Your task to perform on an android device: Search for the best running shoes on Nike. Image 0: 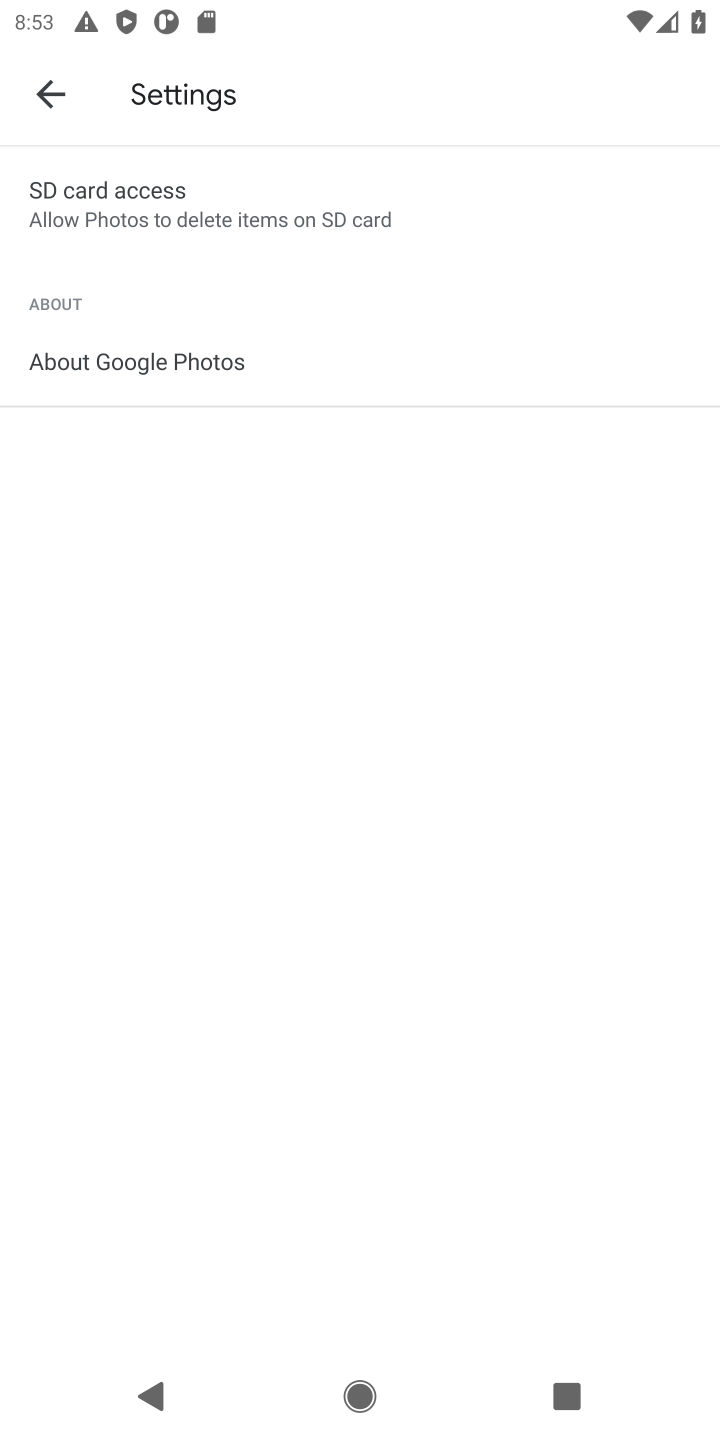
Step 0: press home button
Your task to perform on an android device: Search for the best running shoes on Nike. Image 1: 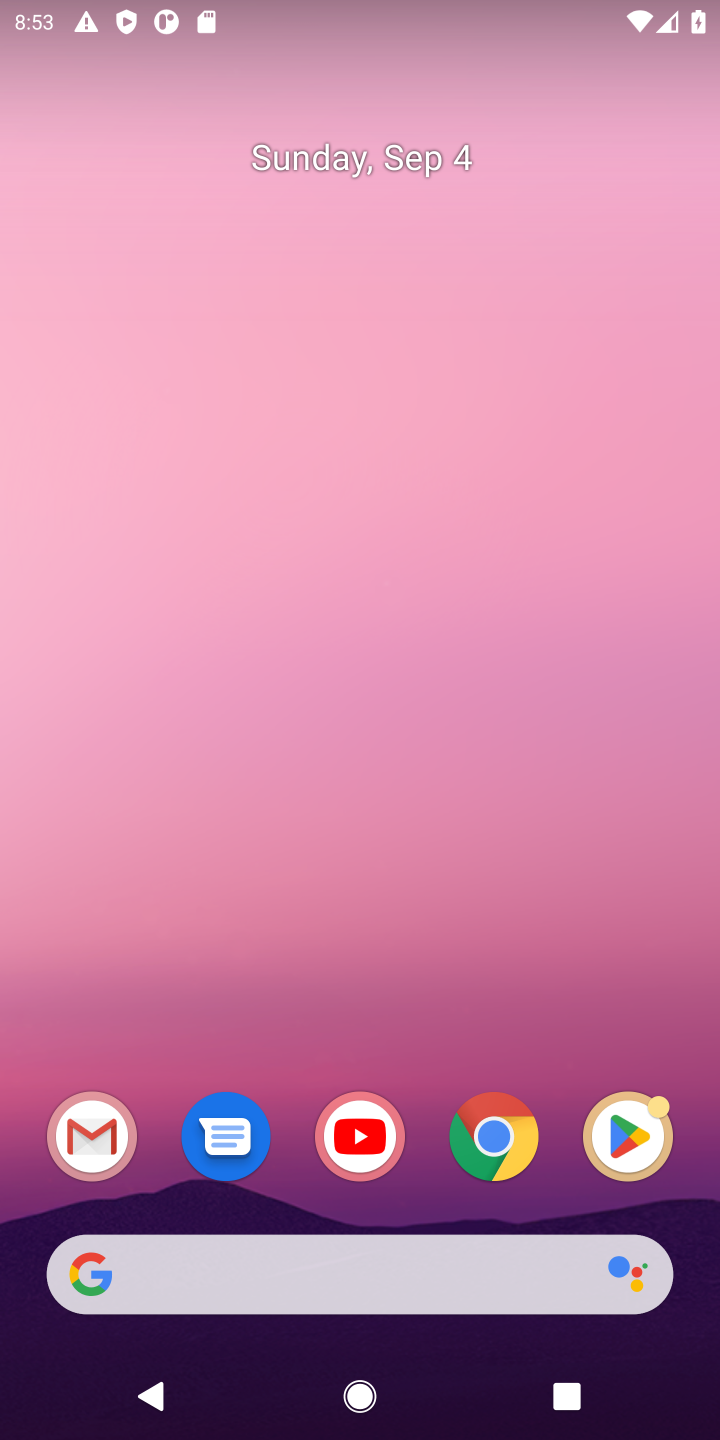
Step 1: drag from (378, 205) to (415, 391)
Your task to perform on an android device: Search for the best running shoes on Nike. Image 2: 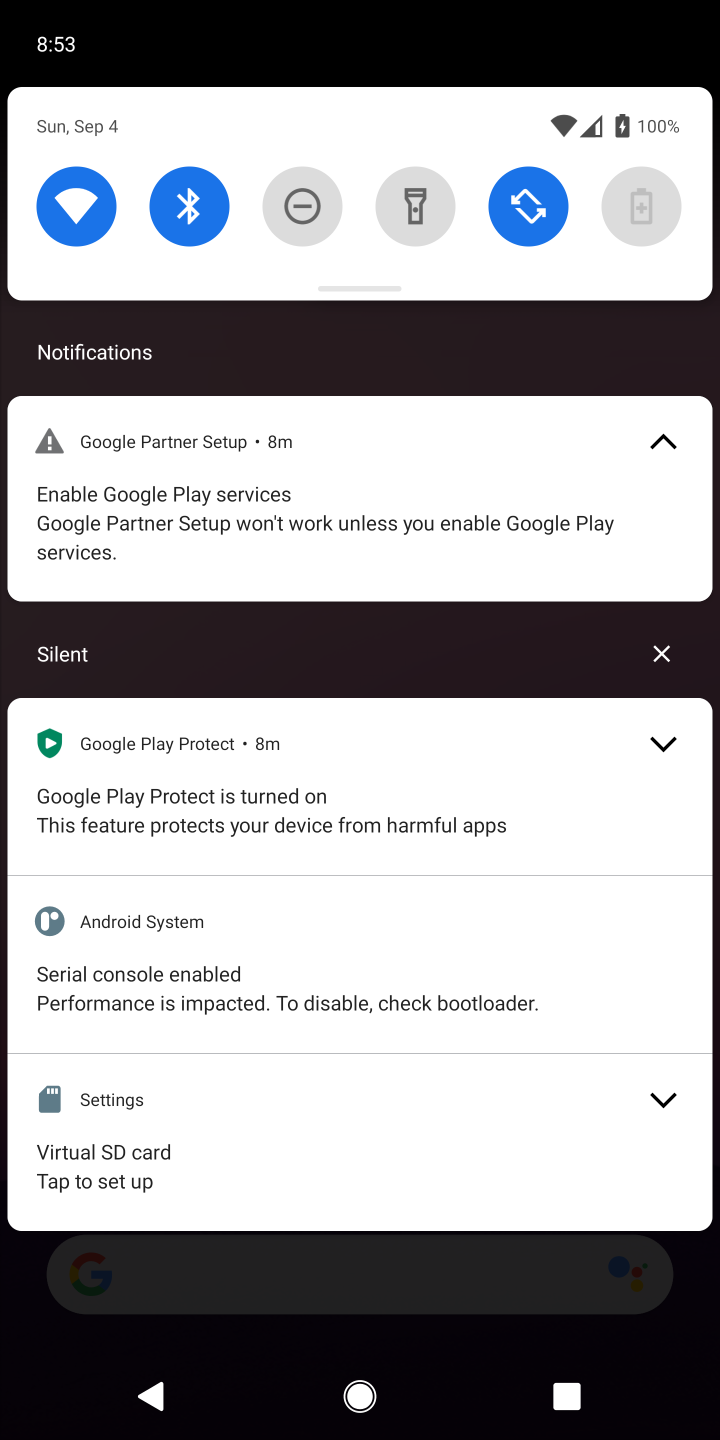
Step 2: click (279, 1185)
Your task to perform on an android device: Search for the best running shoes on Nike. Image 3: 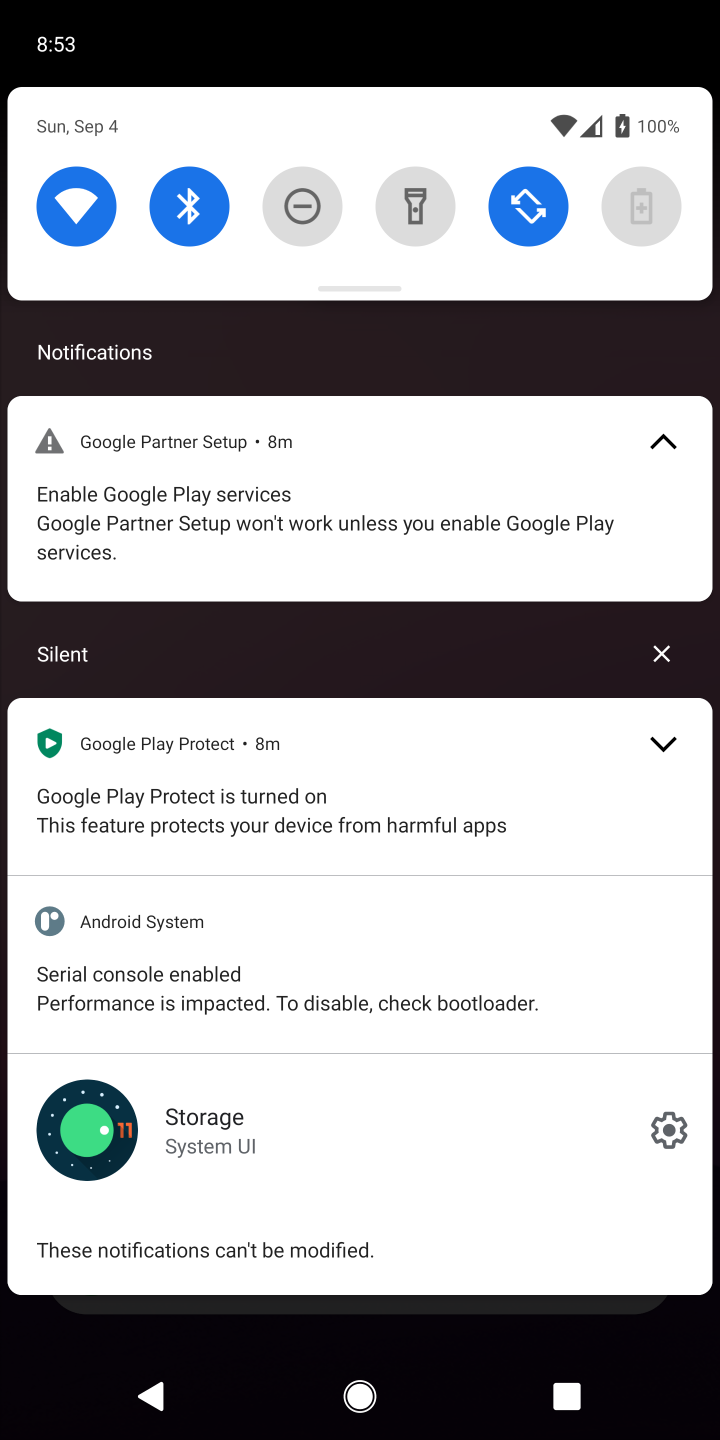
Step 3: press home button
Your task to perform on an android device: Search for the best running shoes on Nike. Image 4: 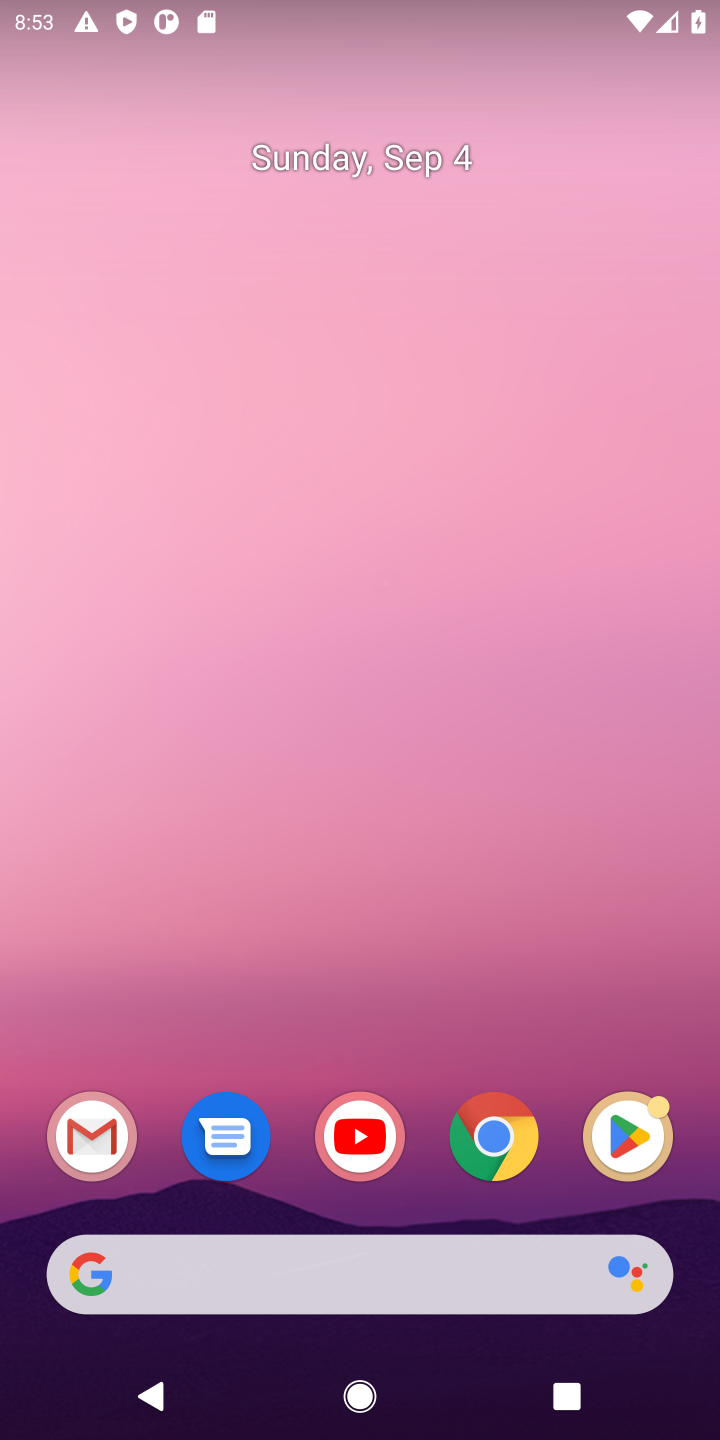
Step 4: click (394, 197)
Your task to perform on an android device: Search for the best running shoes on Nike. Image 5: 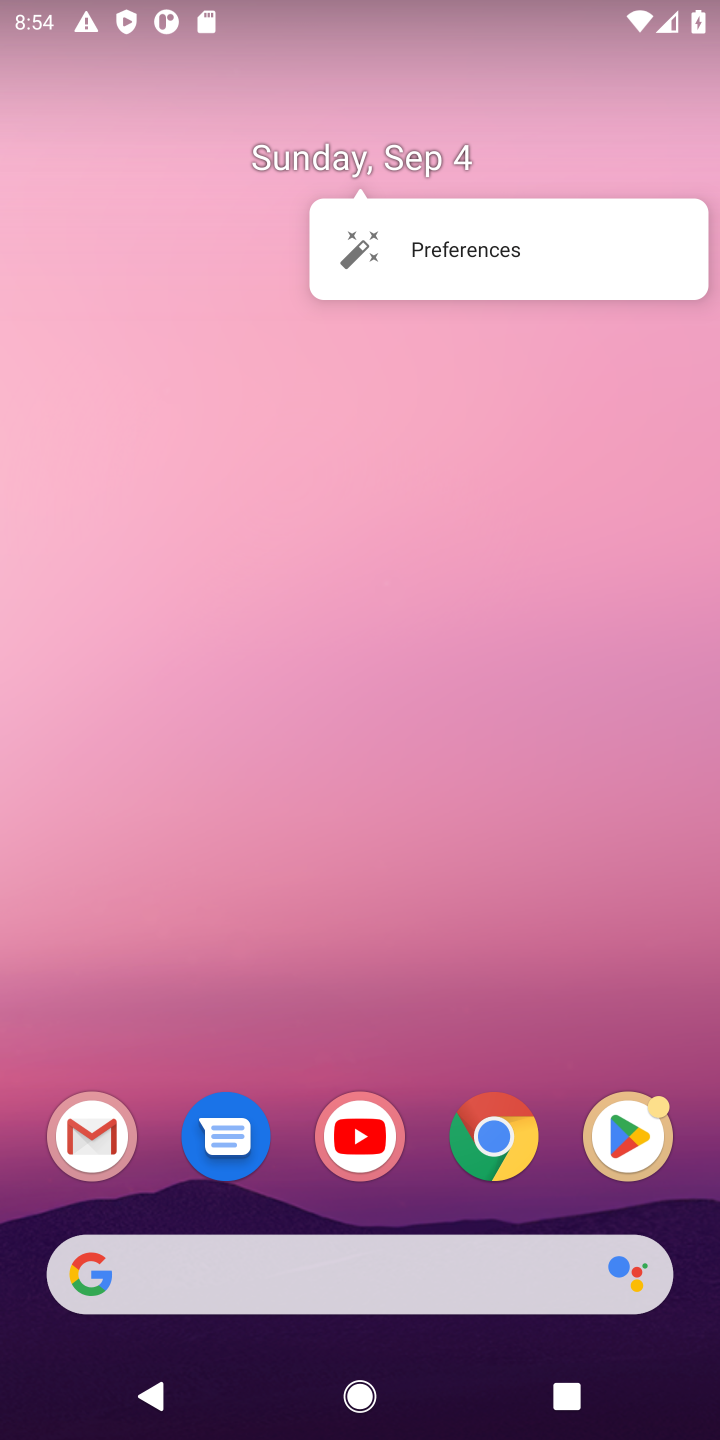
Step 5: drag from (375, 1207) to (322, 57)
Your task to perform on an android device: Search for the best running shoes on Nike. Image 6: 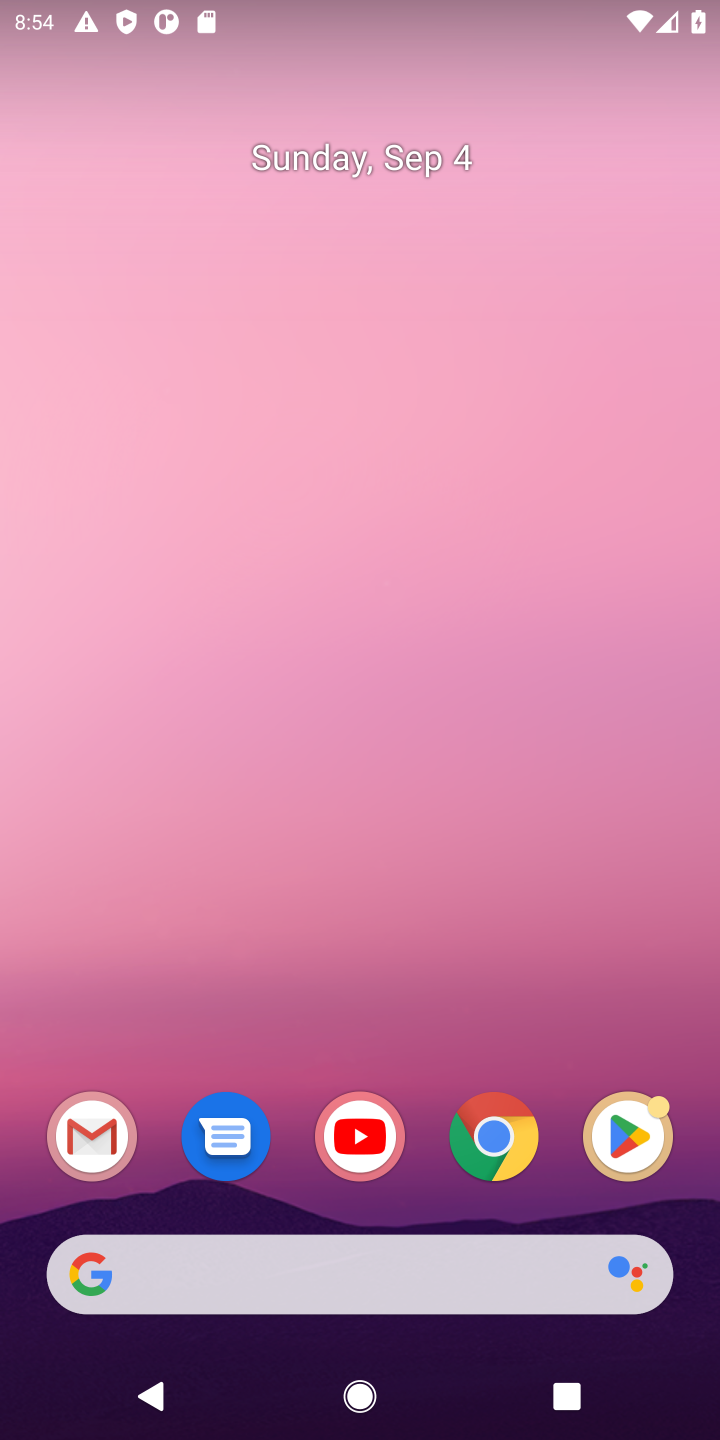
Step 6: drag from (393, 1200) to (469, 239)
Your task to perform on an android device: Search for the best running shoes on Nike. Image 7: 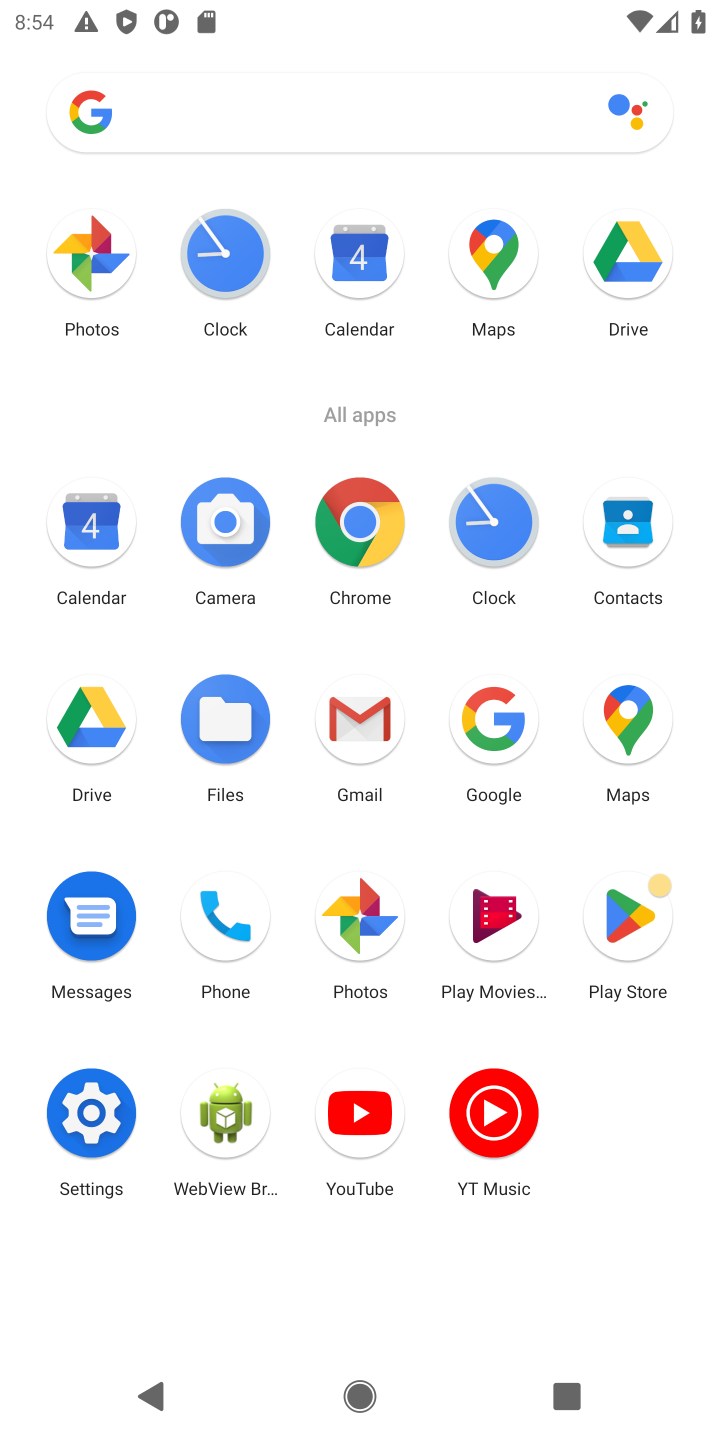
Step 7: click (500, 721)
Your task to perform on an android device: Search for the best running shoes on Nike. Image 8: 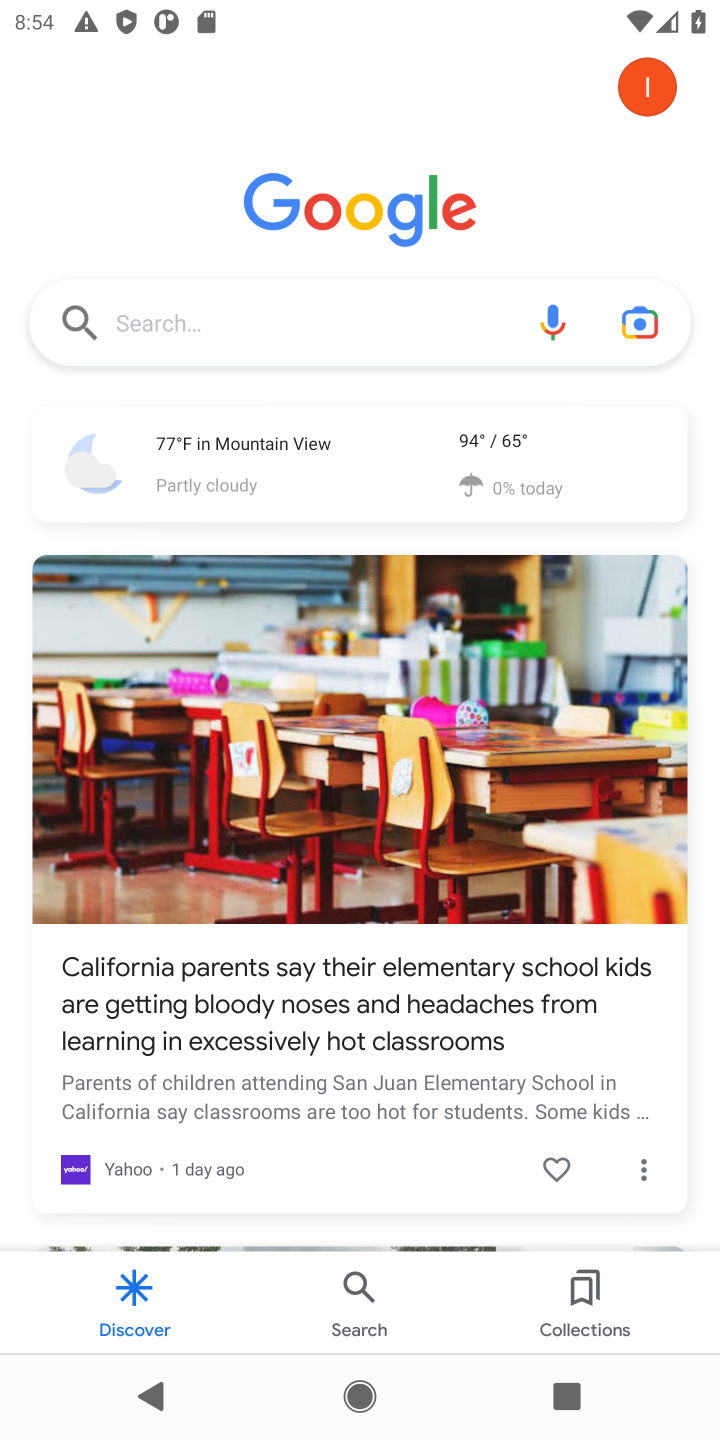
Step 8: click (289, 302)
Your task to perform on an android device: Search for the best running shoes on Nike. Image 9: 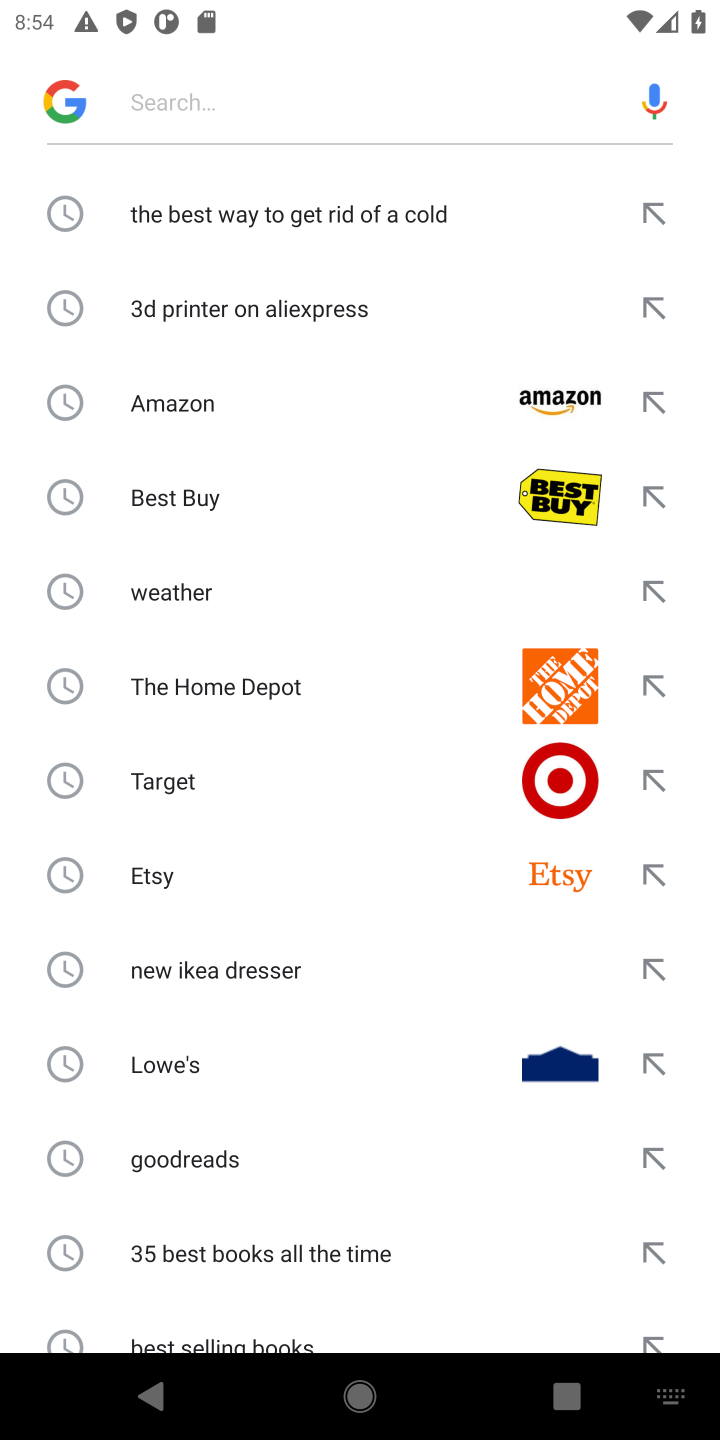
Step 9: type "the best running shoes on Nike"
Your task to perform on an android device: Search for the best running shoes on Nike. Image 10: 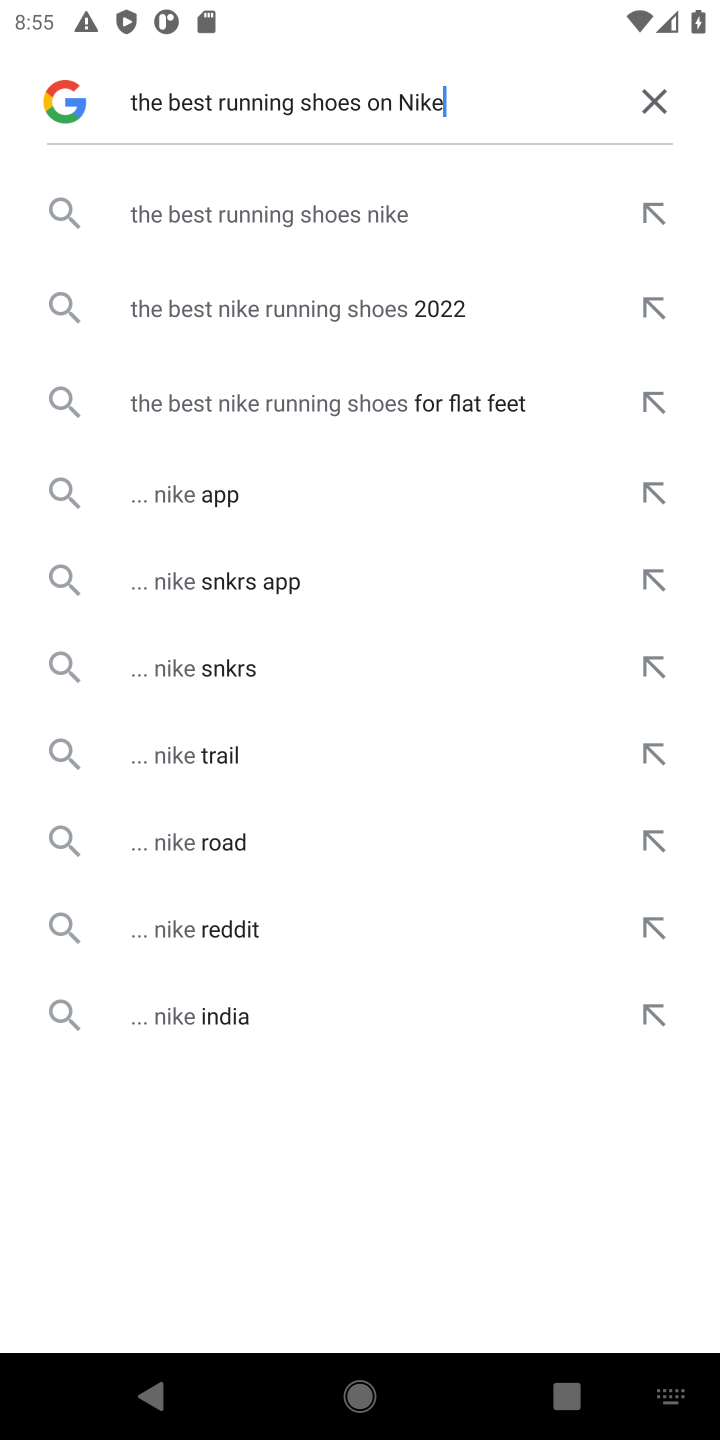
Step 10: click (371, 223)
Your task to perform on an android device: Search for the best running shoes on Nike. Image 11: 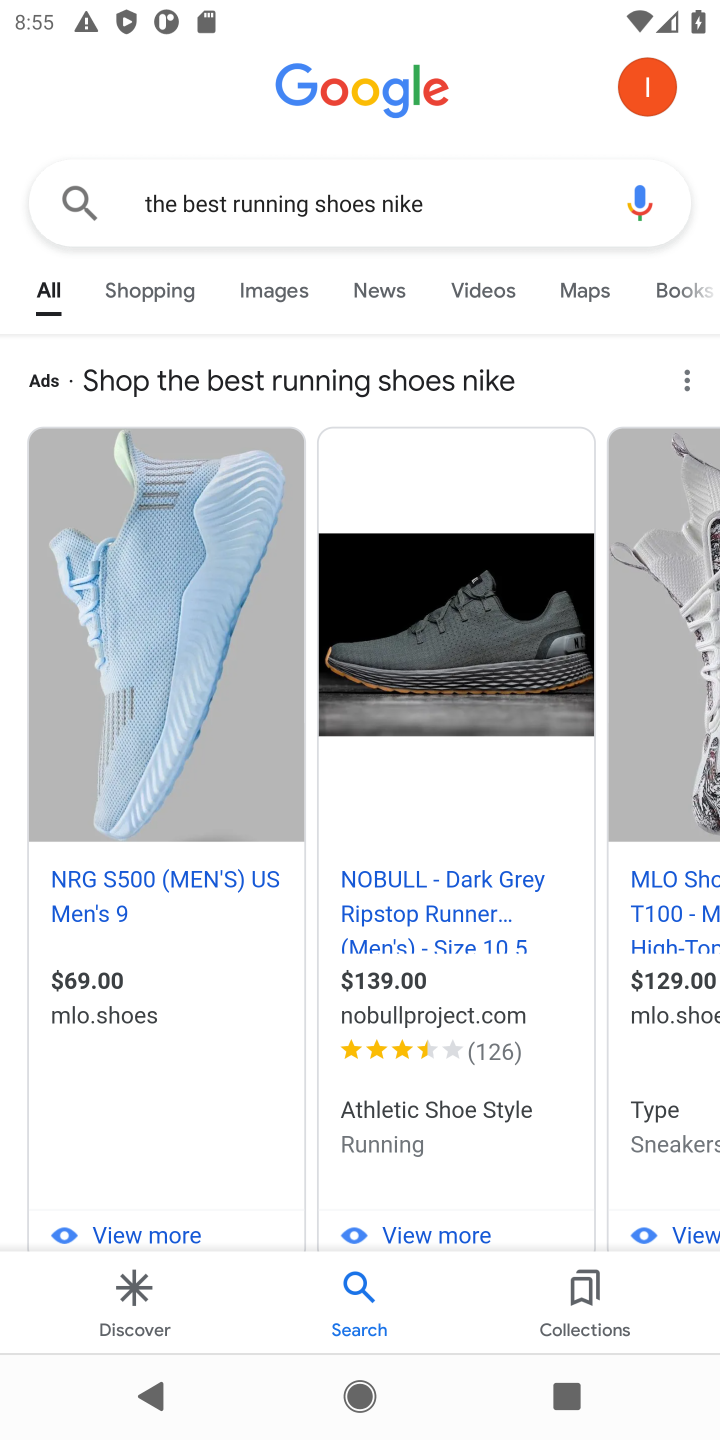
Step 11: task complete